Your task to perform on an android device: Go to ESPN.com Image 0: 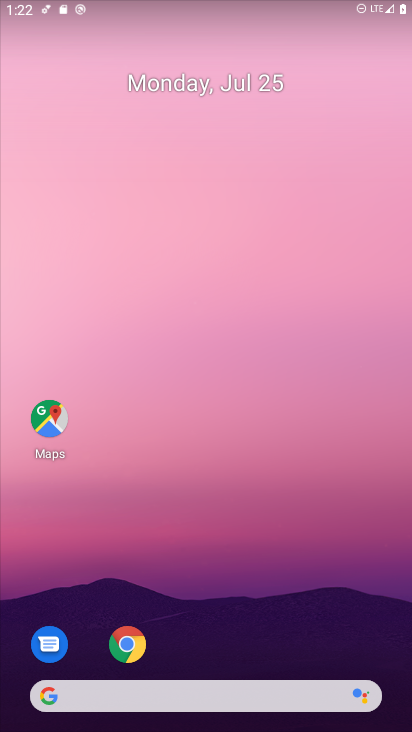
Step 0: drag from (225, 715) to (205, 87)
Your task to perform on an android device: Go to ESPN.com Image 1: 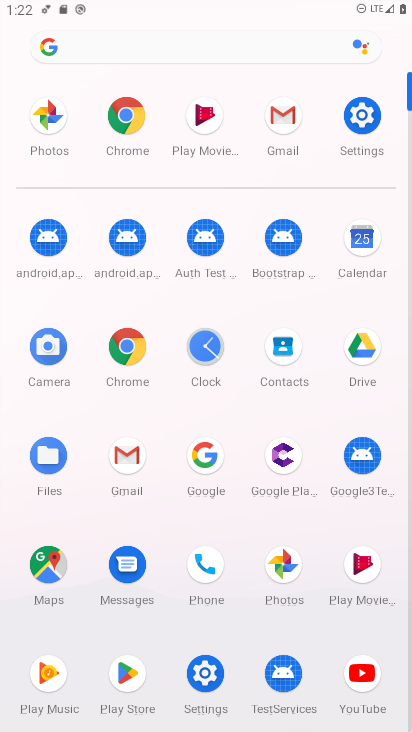
Step 1: click (124, 338)
Your task to perform on an android device: Go to ESPN.com Image 2: 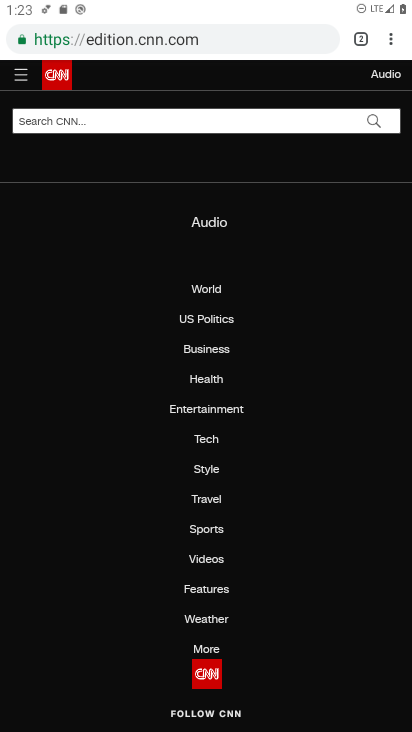
Step 2: click (392, 42)
Your task to perform on an android device: Go to ESPN.com Image 3: 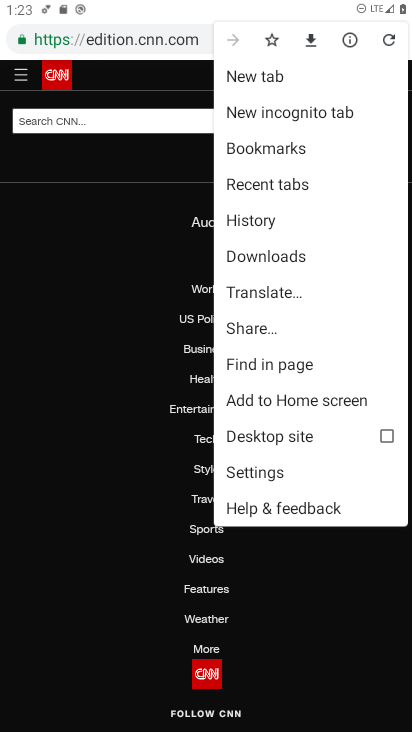
Step 3: click (256, 74)
Your task to perform on an android device: Go to ESPN.com Image 4: 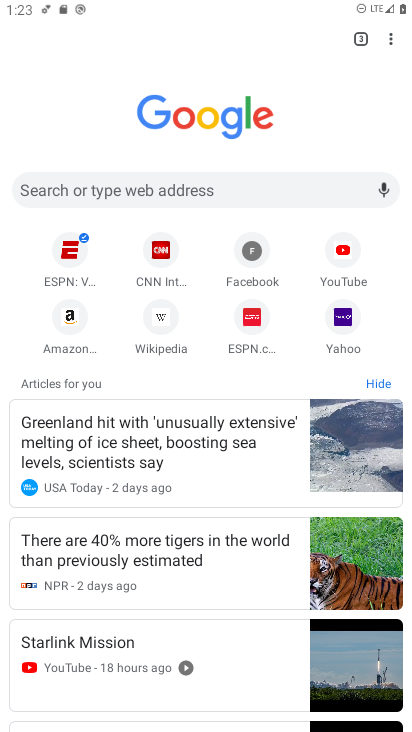
Step 4: click (251, 321)
Your task to perform on an android device: Go to ESPN.com Image 5: 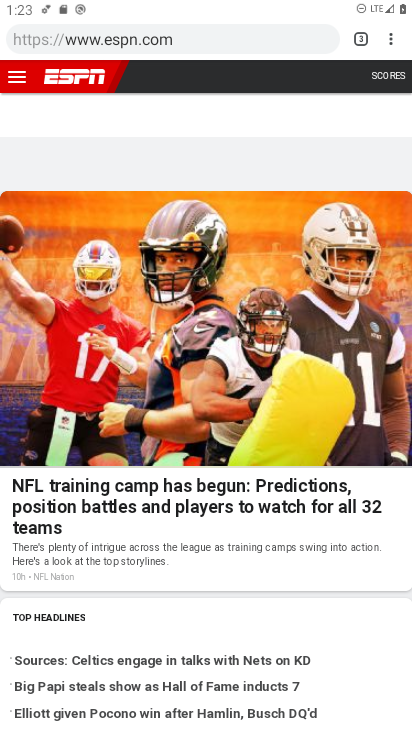
Step 5: task complete